Your task to perform on an android device: stop showing notifications on the lock screen Image 0: 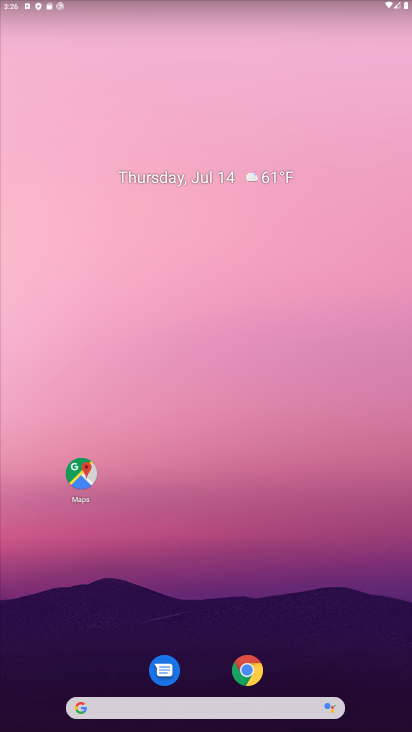
Step 0: drag from (202, 686) to (238, 56)
Your task to perform on an android device: stop showing notifications on the lock screen Image 1: 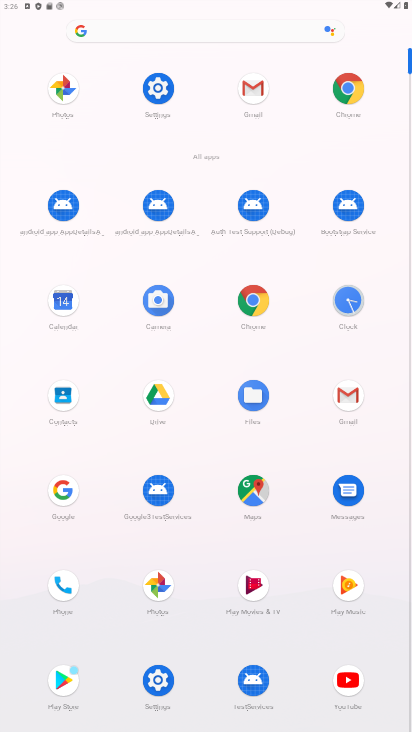
Step 1: click (159, 101)
Your task to perform on an android device: stop showing notifications on the lock screen Image 2: 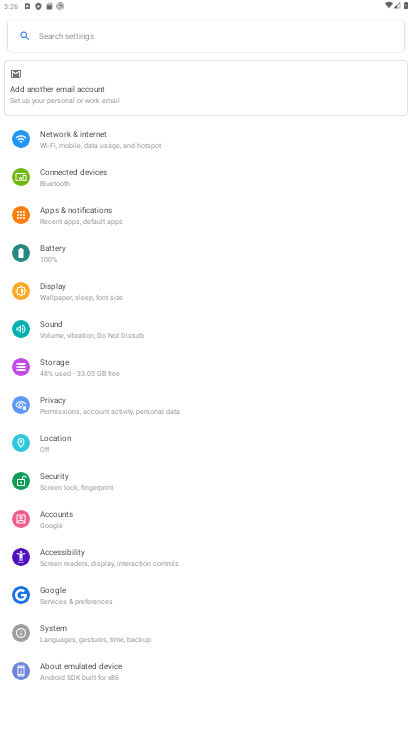
Step 2: click (140, 225)
Your task to perform on an android device: stop showing notifications on the lock screen Image 3: 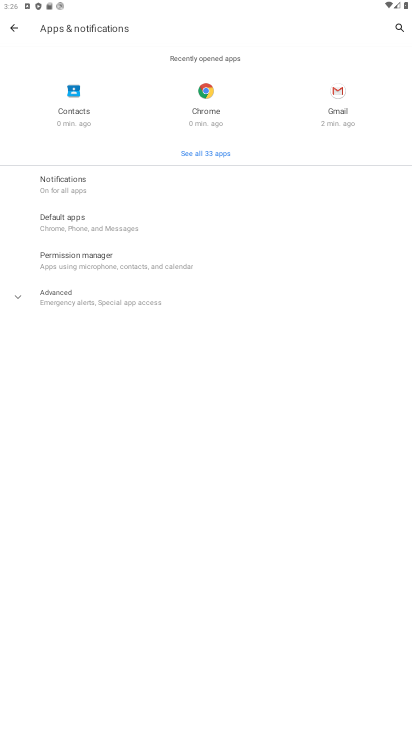
Step 3: click (81, 182)
Your task to perform on an android device: stop showing notifications on the lock screen Image 4: 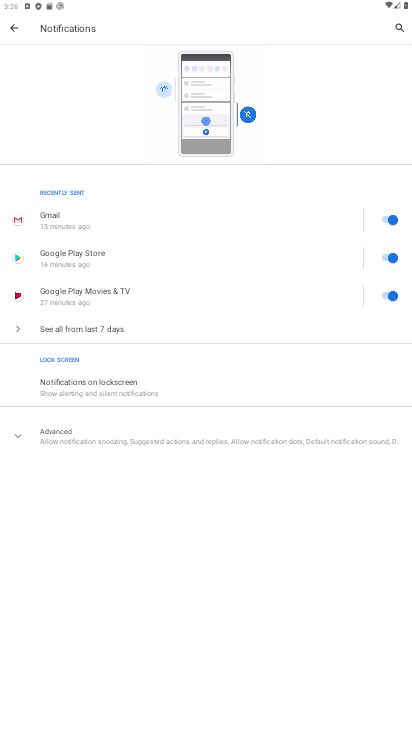
Step 4: click (104, 390)
Your task to perform on an android device: stop showing notifications on the lock screen Image 5: 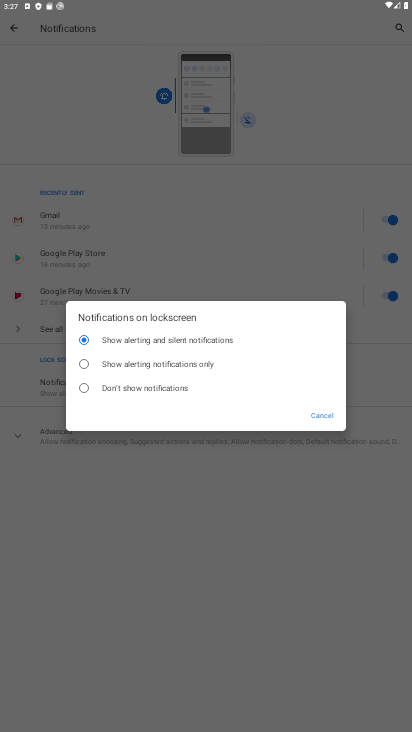
Step 5: task complete